Your task to perform on an android device: create a new album in the google photos Image 0: 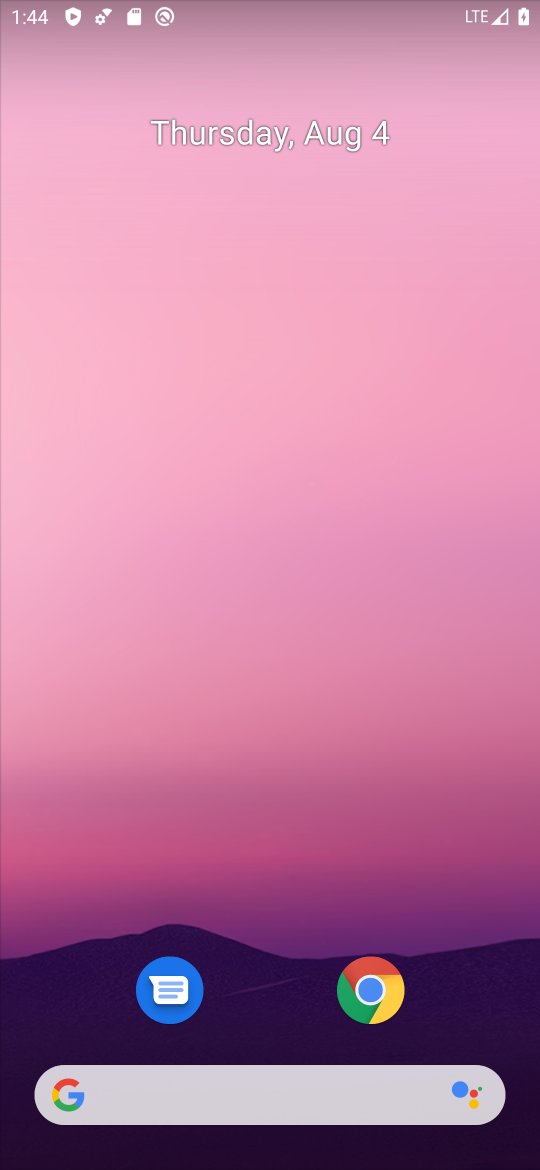
Step 0: drag from (316, 1059) to (368, 263)
Your task to perform on an android device: create a new album in the google photos Image 1: 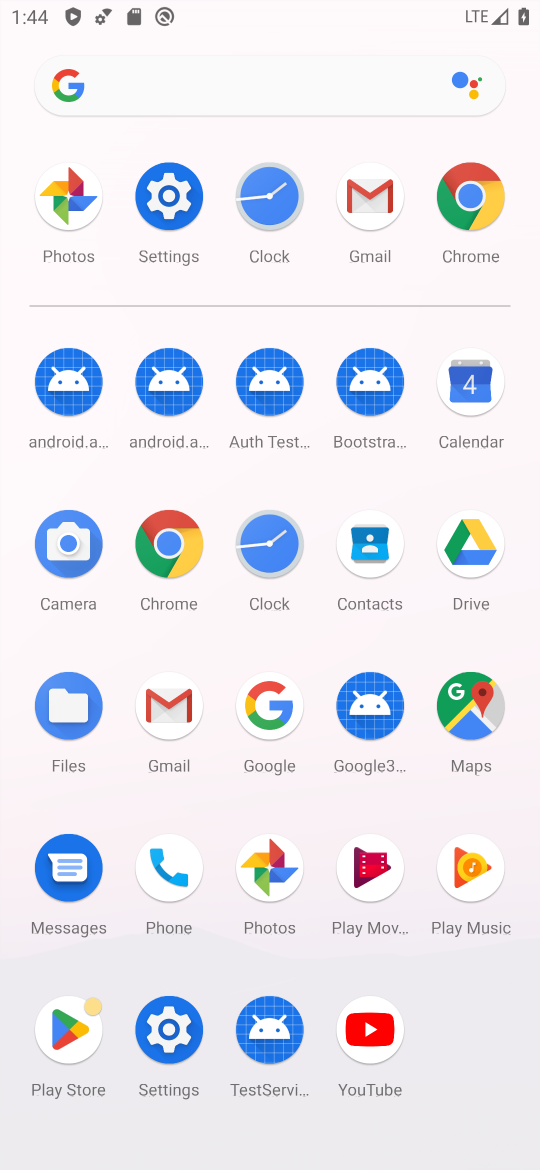
Step 1: click (260, 899)
Your task to perform on an android device: create a new album in the google photos Image 2: 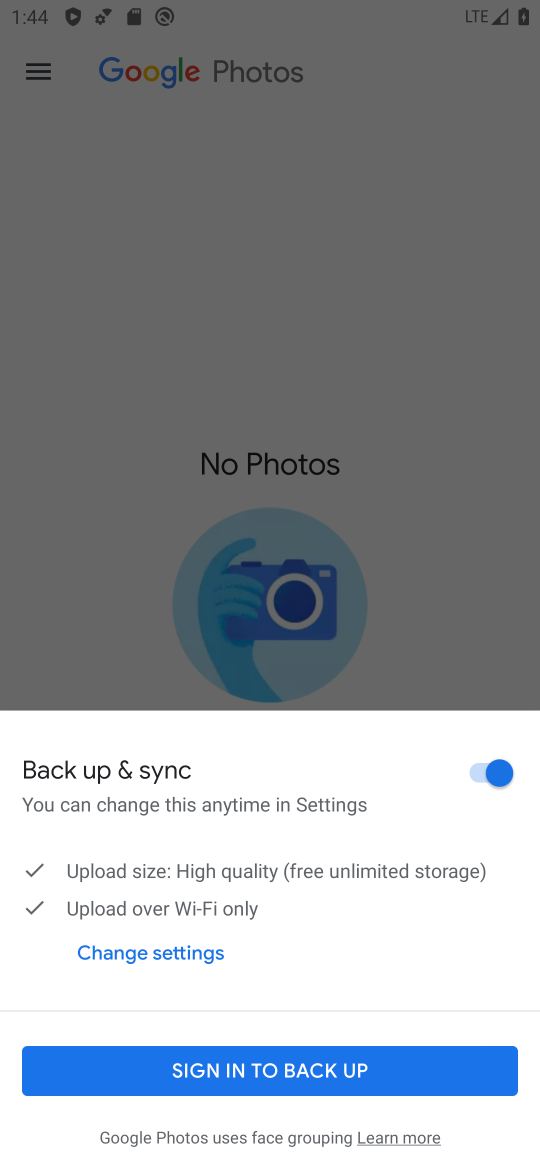
Step 2: click (178, 699)
Your task to perform on an android device: create a new album in the google photos Image 3: 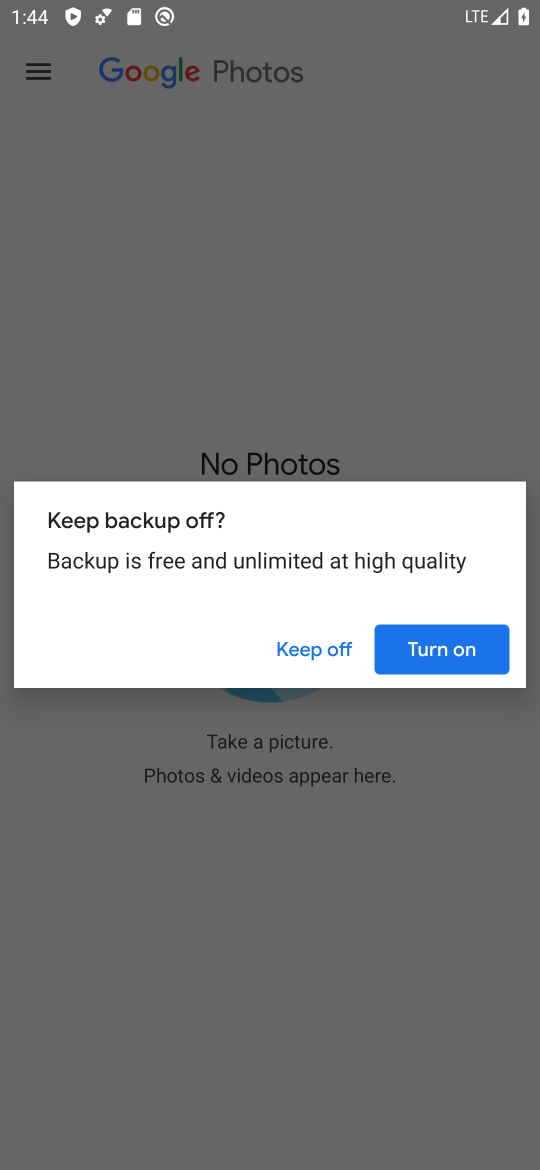
Step 3: click (323, 654)
Your task to perform on an android device: create a new album in the google photos Image 4: 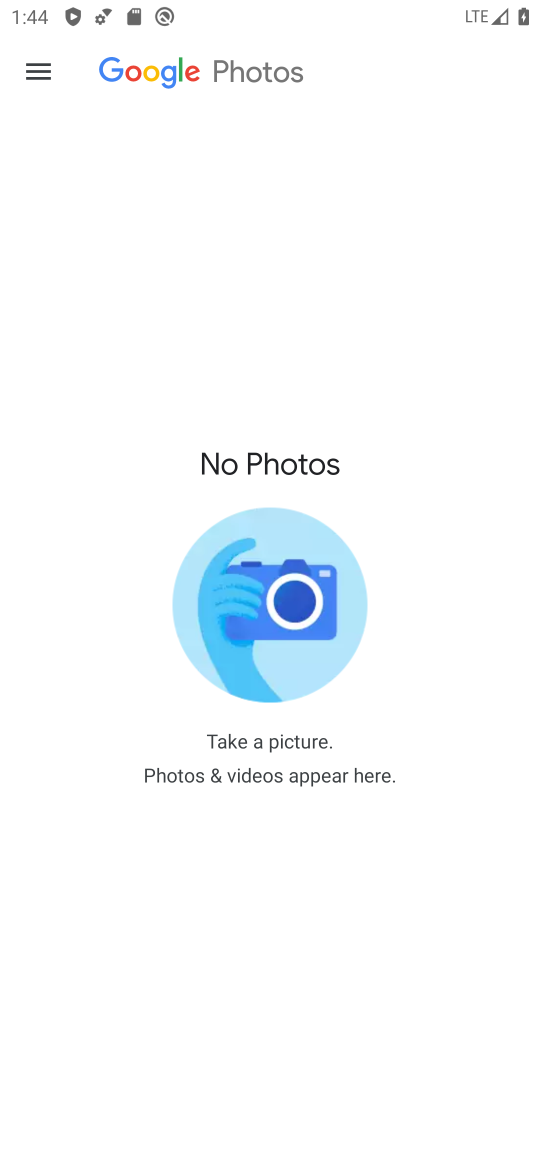
Step 4: click (45, 92)
Your task to perform on an android device: create a new album in the google photos Image 5: 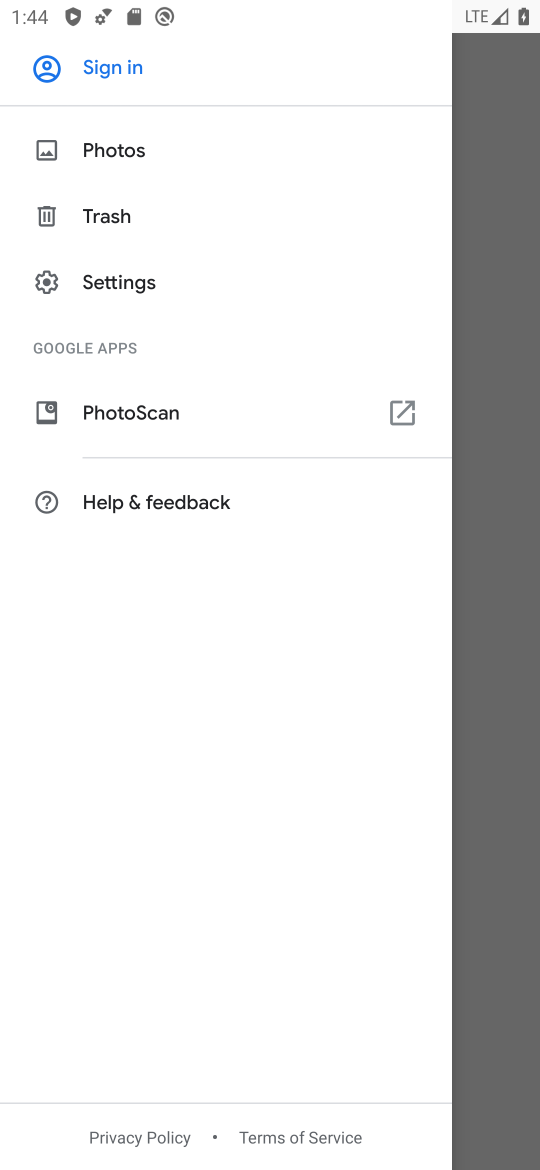
Step 5: click (66, 270)
Your task to perform on an android device: create a new album in the google photos Image 6: 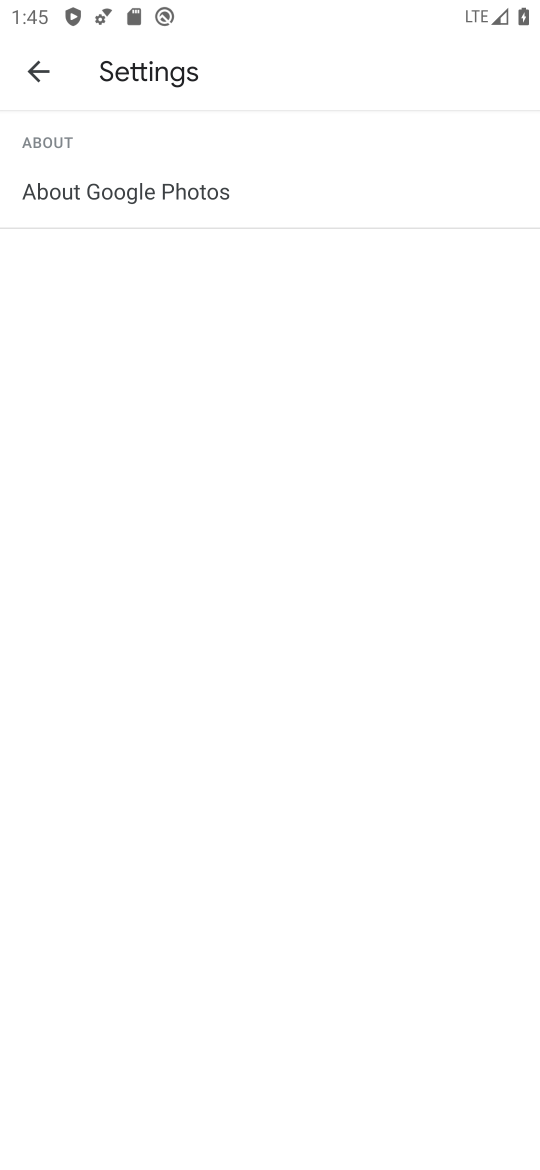
Step 6: task complete